Your task to perform on an android device: Turn off the flashlight Image 0: 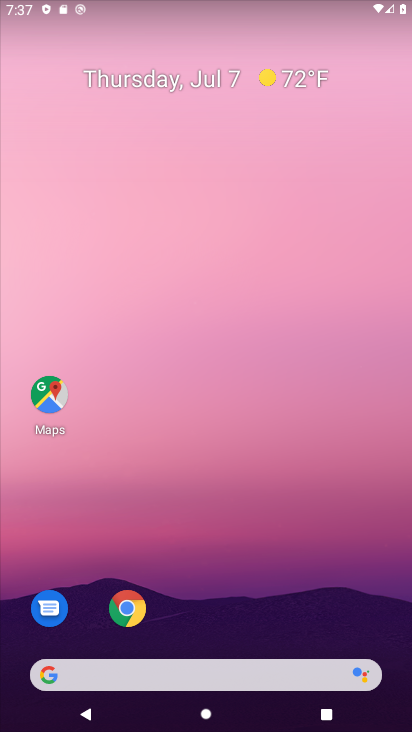
Step 0: drag from (404, 683) to (337, 135)
Your task to perform on an android device: Turn off the flashlight Image 1: 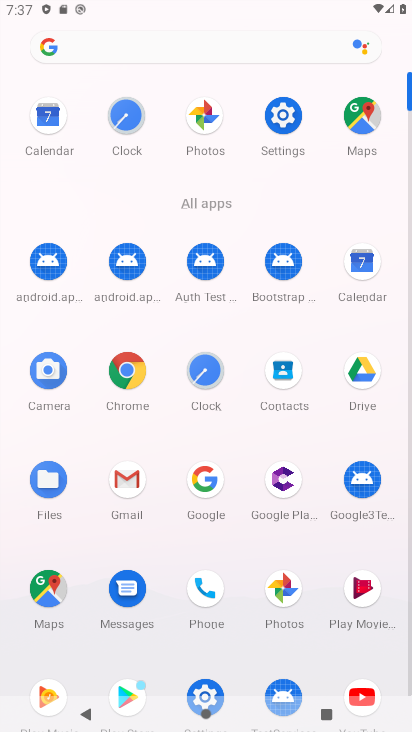
Step 1: click (279, 119)
Your task to perform on an android device: Turn off the flashlight Image 2: 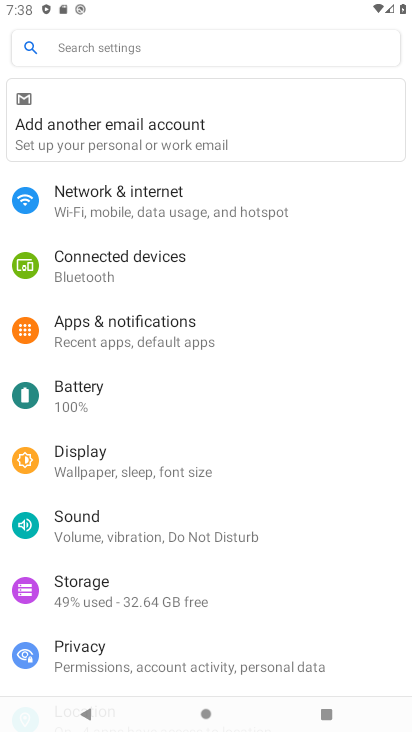
Step 2: click (80, 455)
Your task to perform on an android device: Turn off the flashlight Image 3: 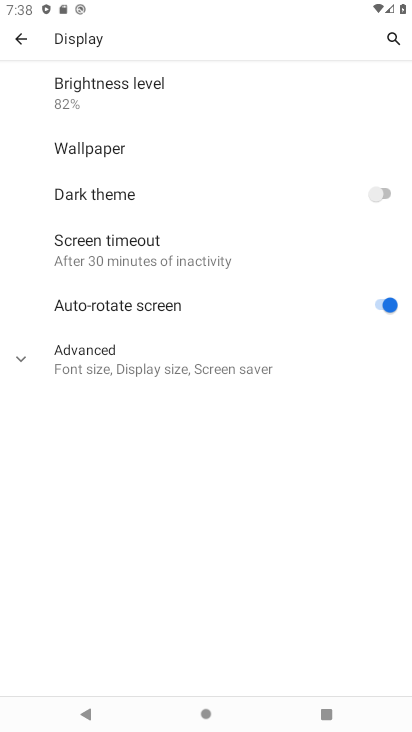
Step 3: task complete